Your task to perform on an android device: turn off sleep mode Image 0: 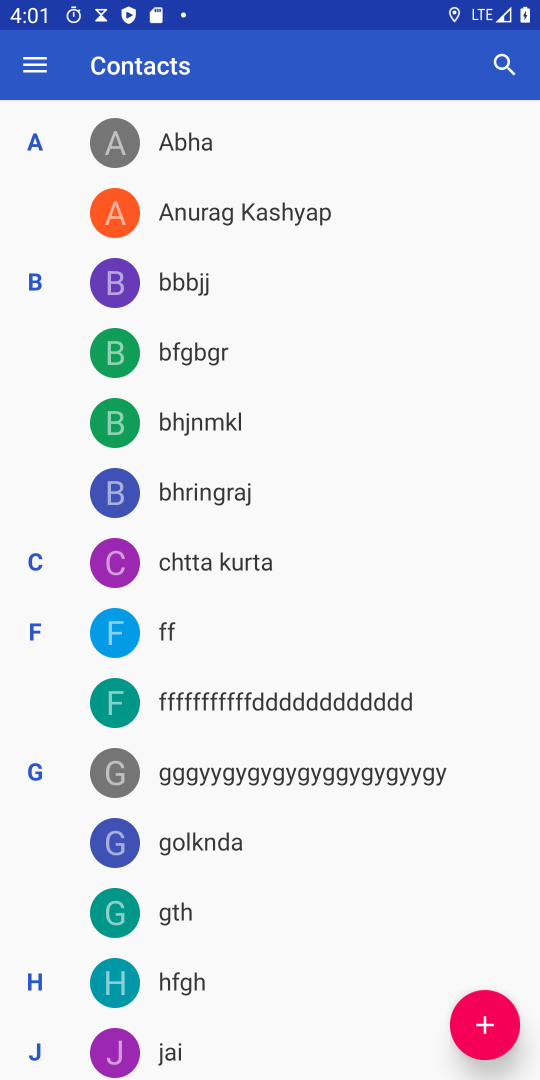
Step 0: press home button
Your task to perform on an android device: turn off sleep mode Image 1: 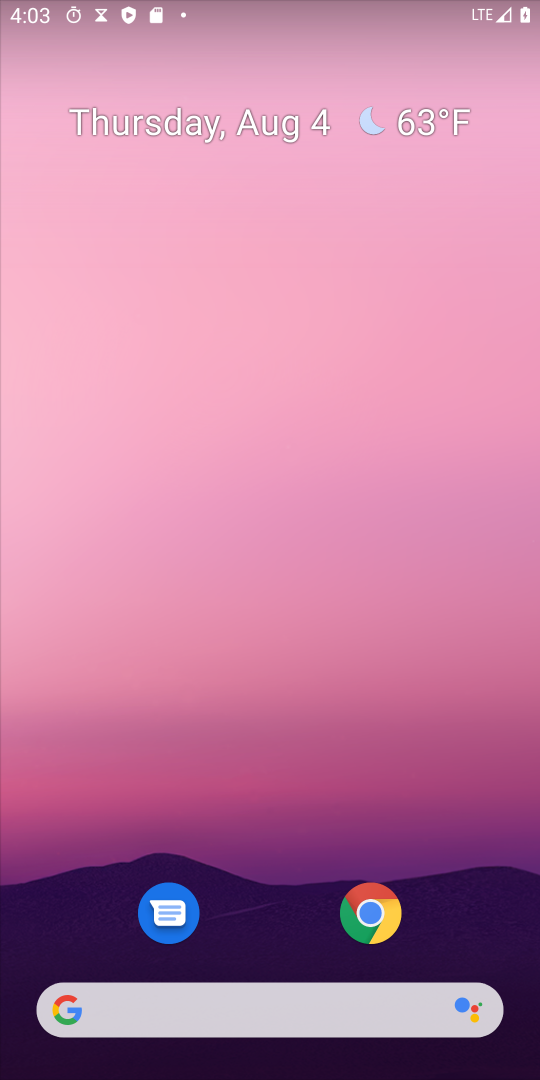
Step 1: drag from (280, 845) to (413, 1)
Your task to perform on an android device: turn off sleep mode Image 2: 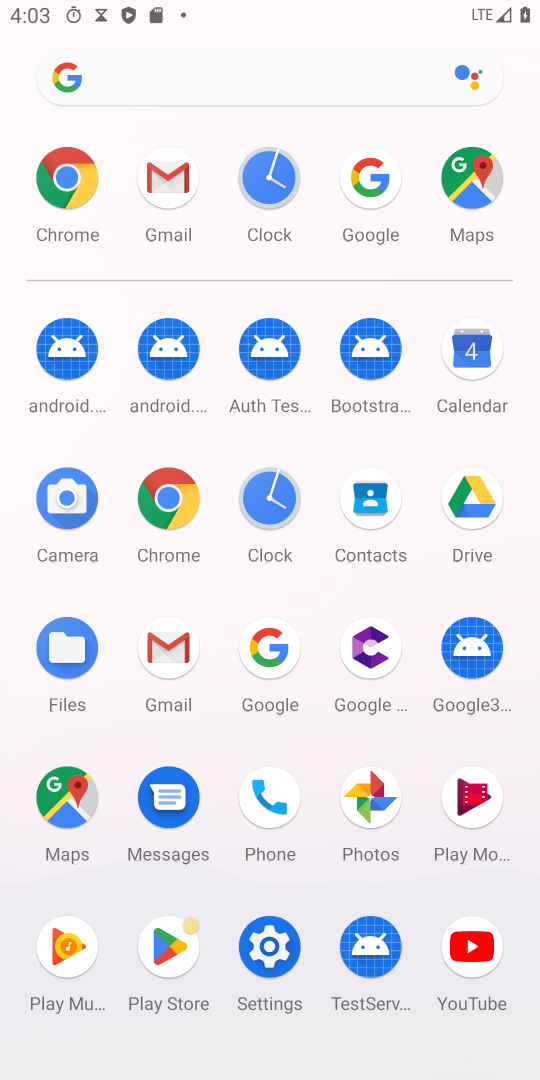
Step 2: click (274, 944)
Your task to perform on an android device: turn off sleep mode Image 3: 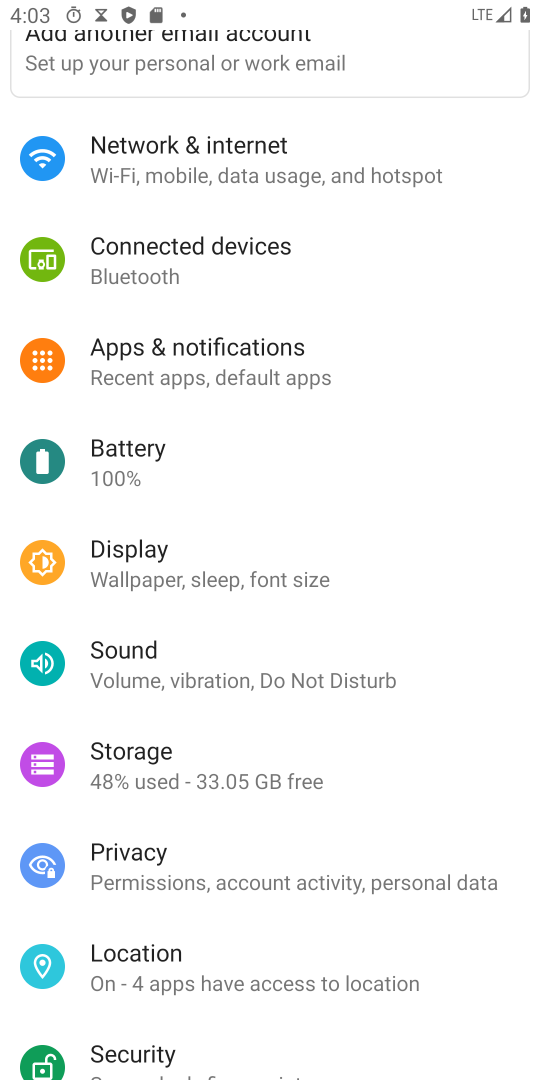
Step 3: task complete